Your task to perform on an android device: Open Google Maps and go to "Timeline" Image 0: 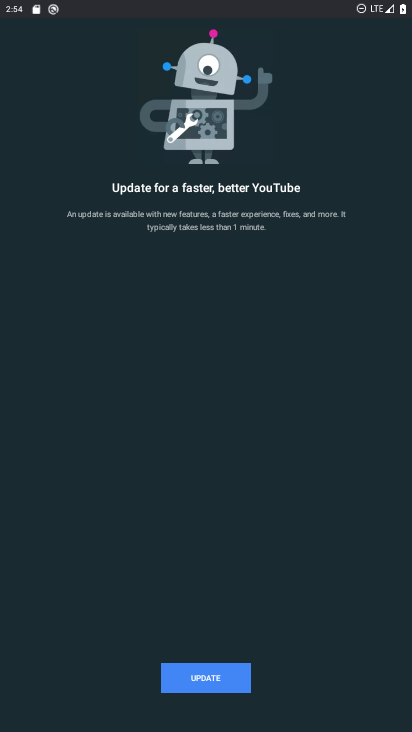
Step 0: press home button
Your task to perform on an android device: Open Google Maps and go to "Timeline" Image 1: 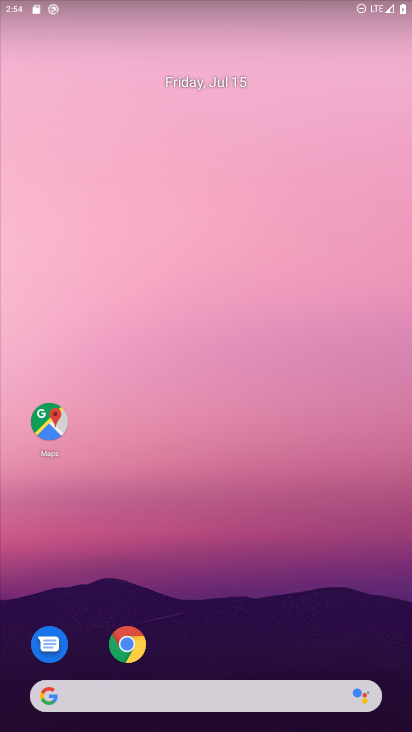
Step 1: drag from (31, 530) to (235, 107)
Your task to perform on an android device: Open Google Maps and go to "Timeline" Image 2: 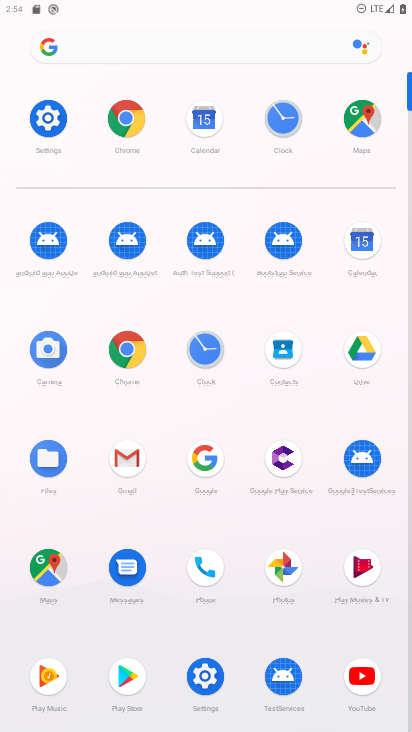
Step 2: click (365, 126)
Your task to perform on an android device: Open Google Maps and go to "Timeline" Image 3: 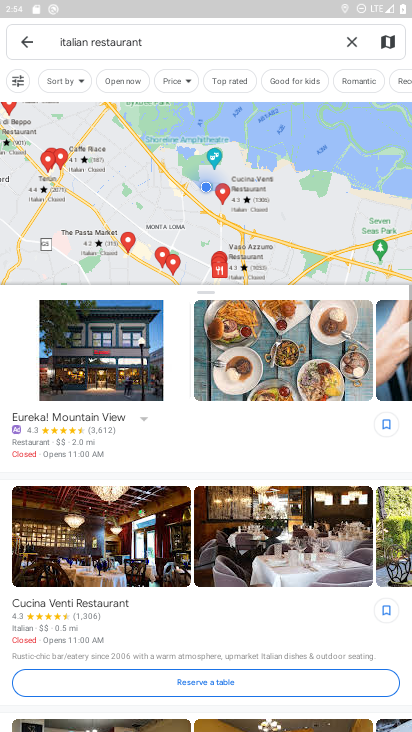
Step 3: click (18, 42)
Your task to perform on an android device: Open Google Maps and go to "Timeline" Image 4: 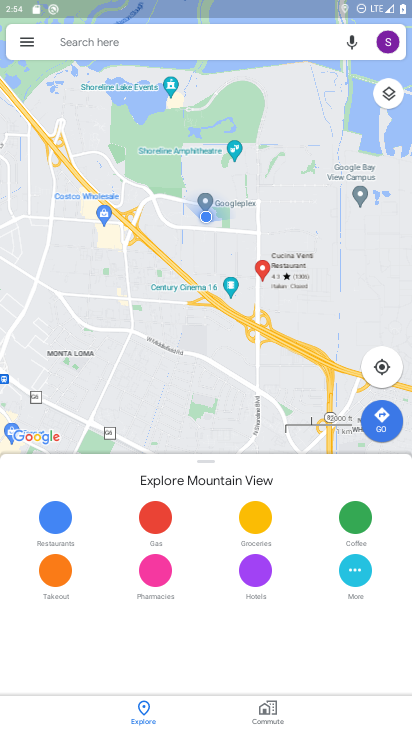
Step 4: click (27, 44)
Your task to perform on an android device: Open Google Maps and go to "Timeline" Image 5: 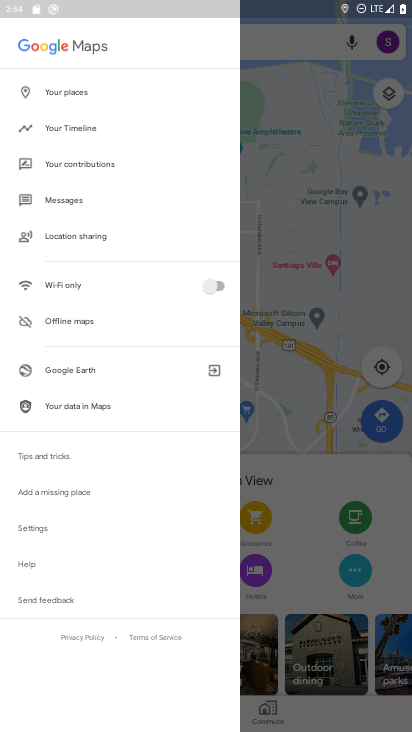
Step 5: drag from (73, 413) to (9, 236)
Your task to perform on an android device: Open Google Maps and go to "Timeline" Image 6: 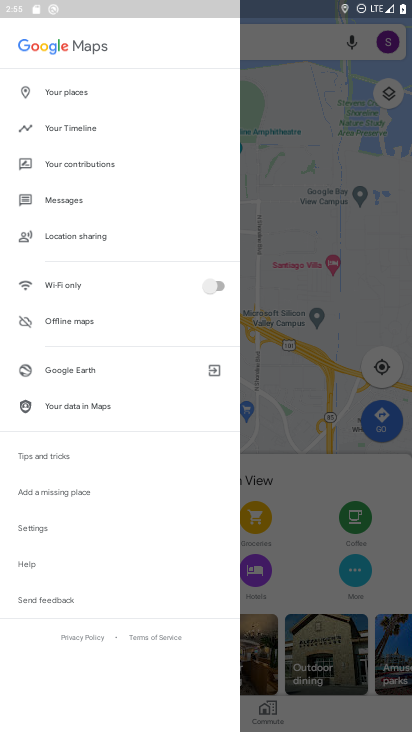
Step 6: click (104, 128)
Your task to perform on an android device: Open Google Maps and go to "Timeline" Image 7: 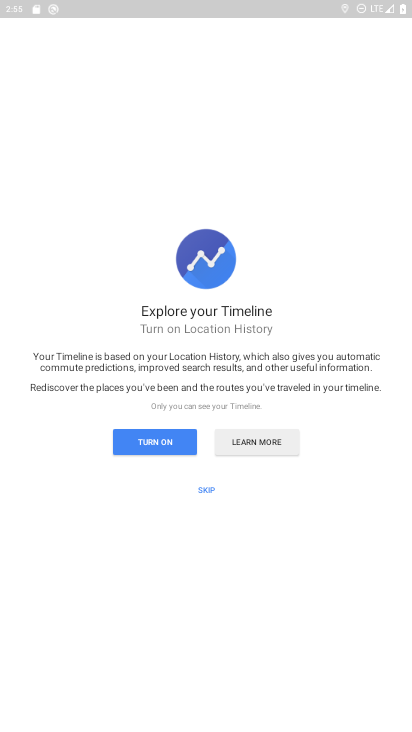
Step 7: task complete